Your task to perform on an android device: empty trash in google photos Image 0: 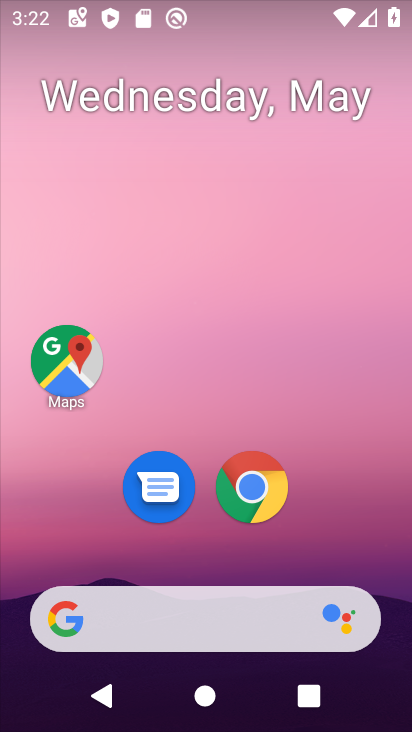
Step 0: drag from (345, 510) to (275, 38)
Your task to perform on an android device: empty trash in google photos Image 1: 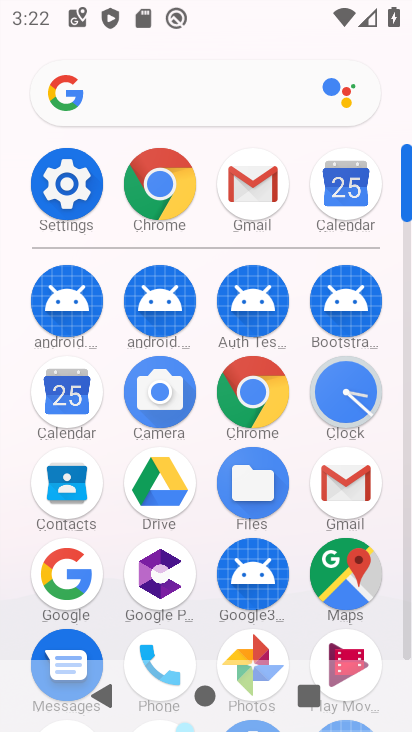
Step 1: drag from (8, 572) to (6, 260)
Your task to perform on an android device: empty trash in google photos Image 2: 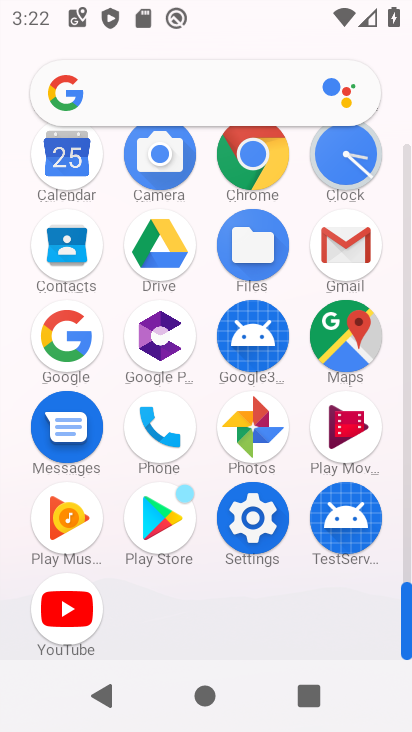
Step 2: click (255, 422)
Your task to perform on an android device: empty trash in google photos Image 3: 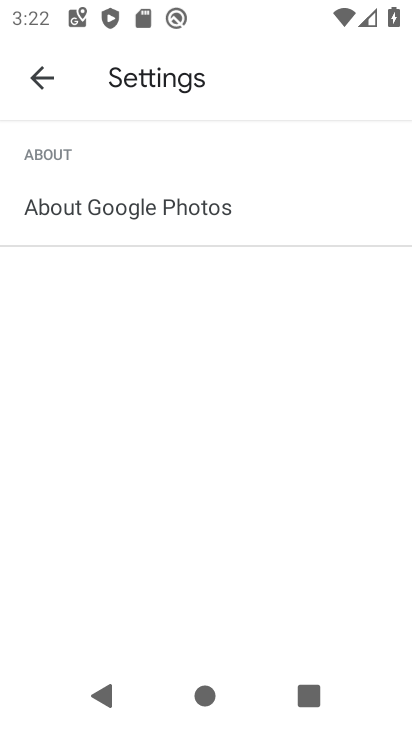
Step 3: click (40, 68)
Your task to perform on an android device: empty trash in google photos Image 4: 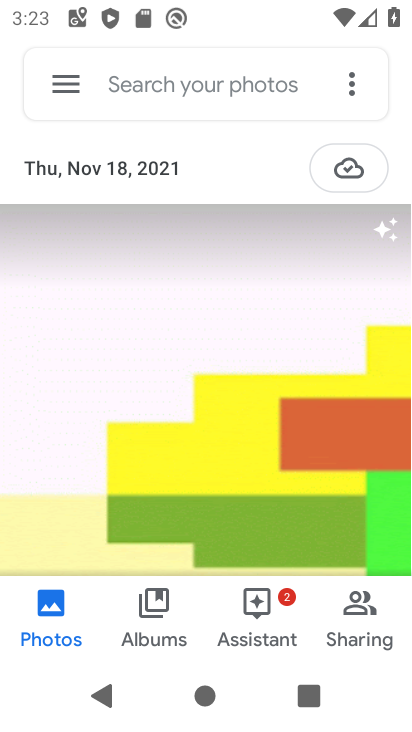
Step 4: click (70, 79)
Your task to perform on an android device: empty trash in google photos Image 5: 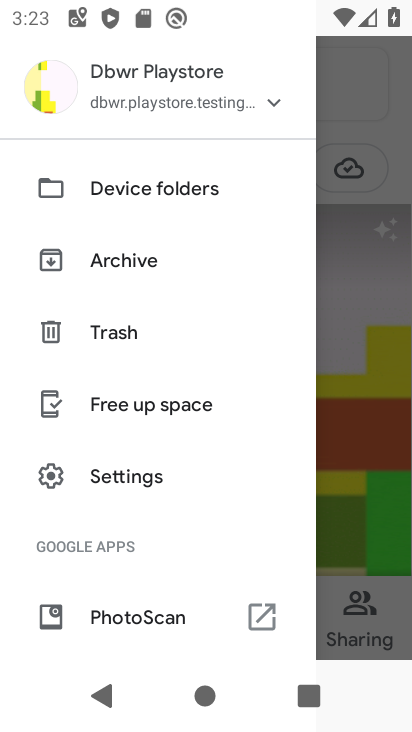
Step 5: click (133, 322)
Your task to perform on an android device: empty trash in google photos Image 6: 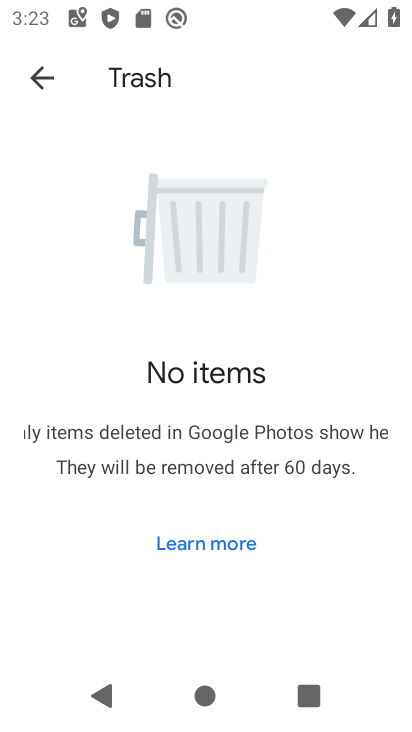
Step 6: task complete